Your task to perform on an android device: open a new tab in the chrome app Image 0: 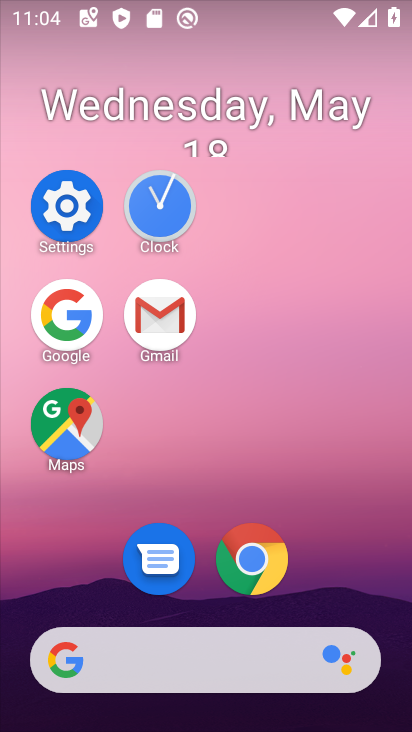
Step 0: click (247, 555)
Your task to perform on an android device: open a new tab in the chrome app Image 1: 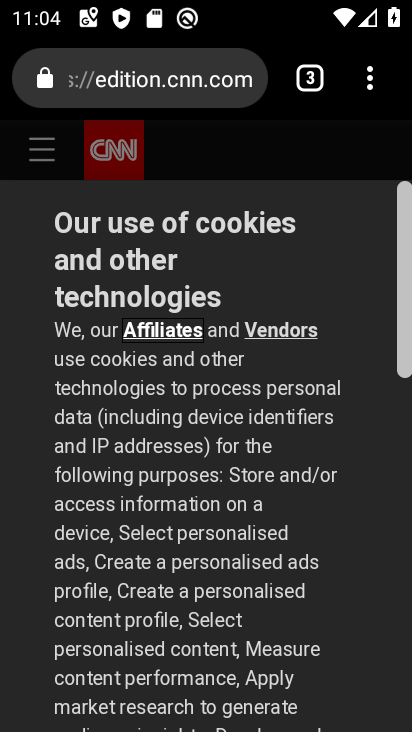
Step 1: click (315, 89)
Your task to perform on an android device: open a new tab in the chrome app Image 2: 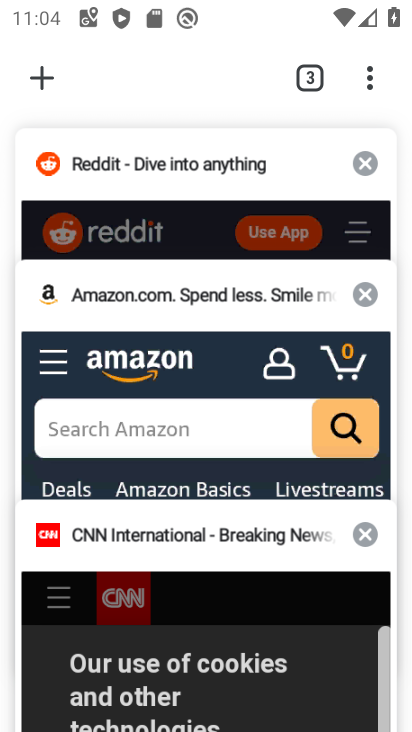
Step 2: click (55, 76)
Your task to perform on an android device: open a new tab in the chrome app Image 3: 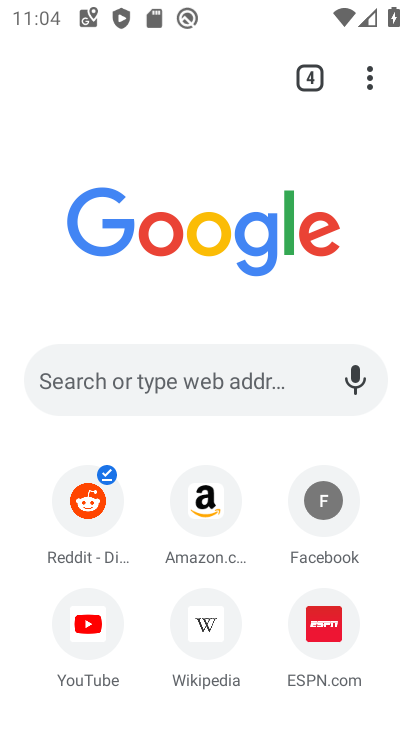
Step 3: task complete